Your task to perform on an android device: Go to eBay Image 0: 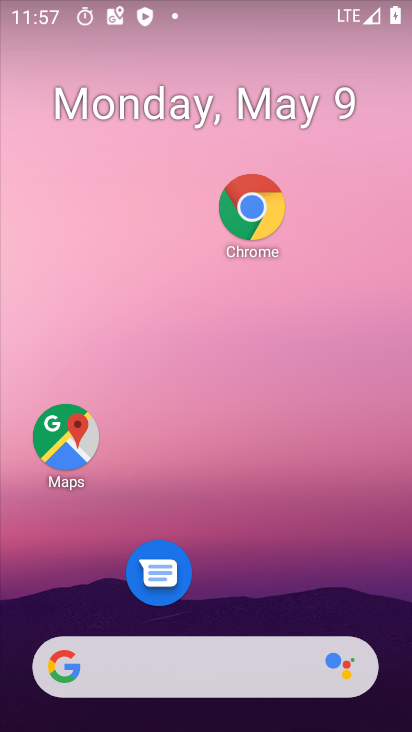
Step 0: click (243, 205)
Your task to perform on an android device: Go to eBay Image 1: 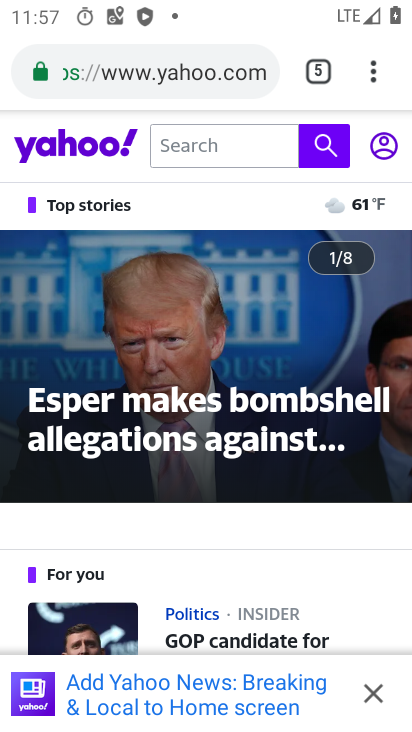
Step 1: click (217, 99)
Your task to perform on an android device: Go to eBay Image 2: 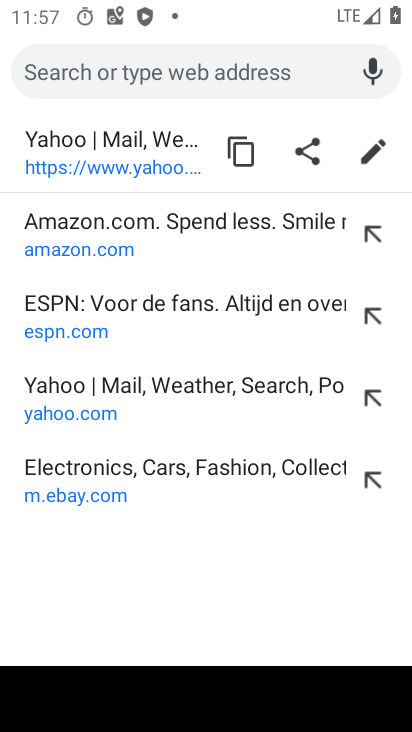
Step 2: click (93, 487)
Your task to perform on an android device: Go to eBay Image 3: 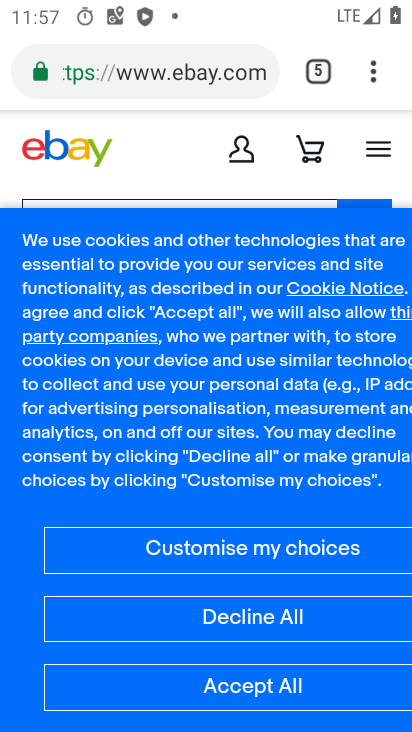
Step 3: task complete